Your task to perform on an android device: Add "panasonic triple a" to the cart on ebay.com, then select checkout. Image 0: 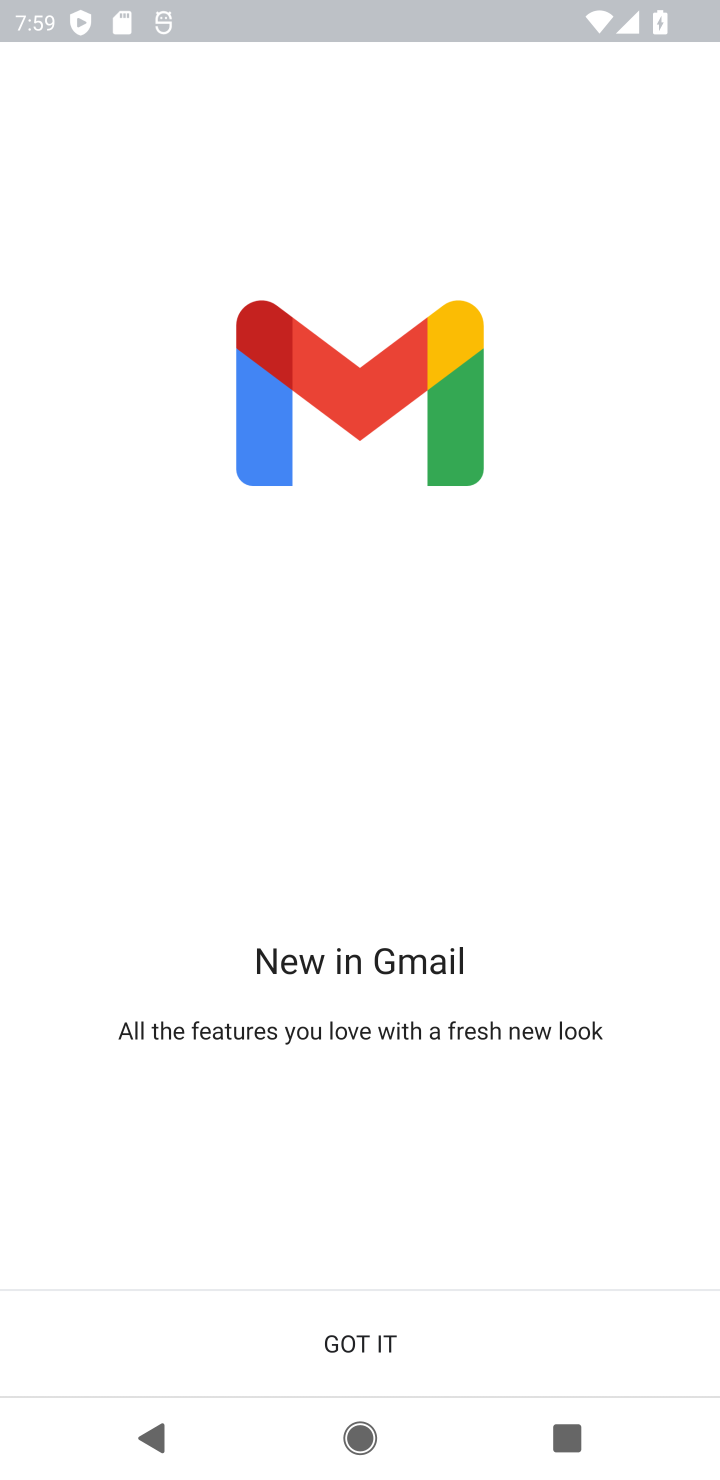
Step 0: press home button
Your task to perform on an android device: Add "panasonic triple a" to the cart on ebay.com, then select checkout. Image 1: 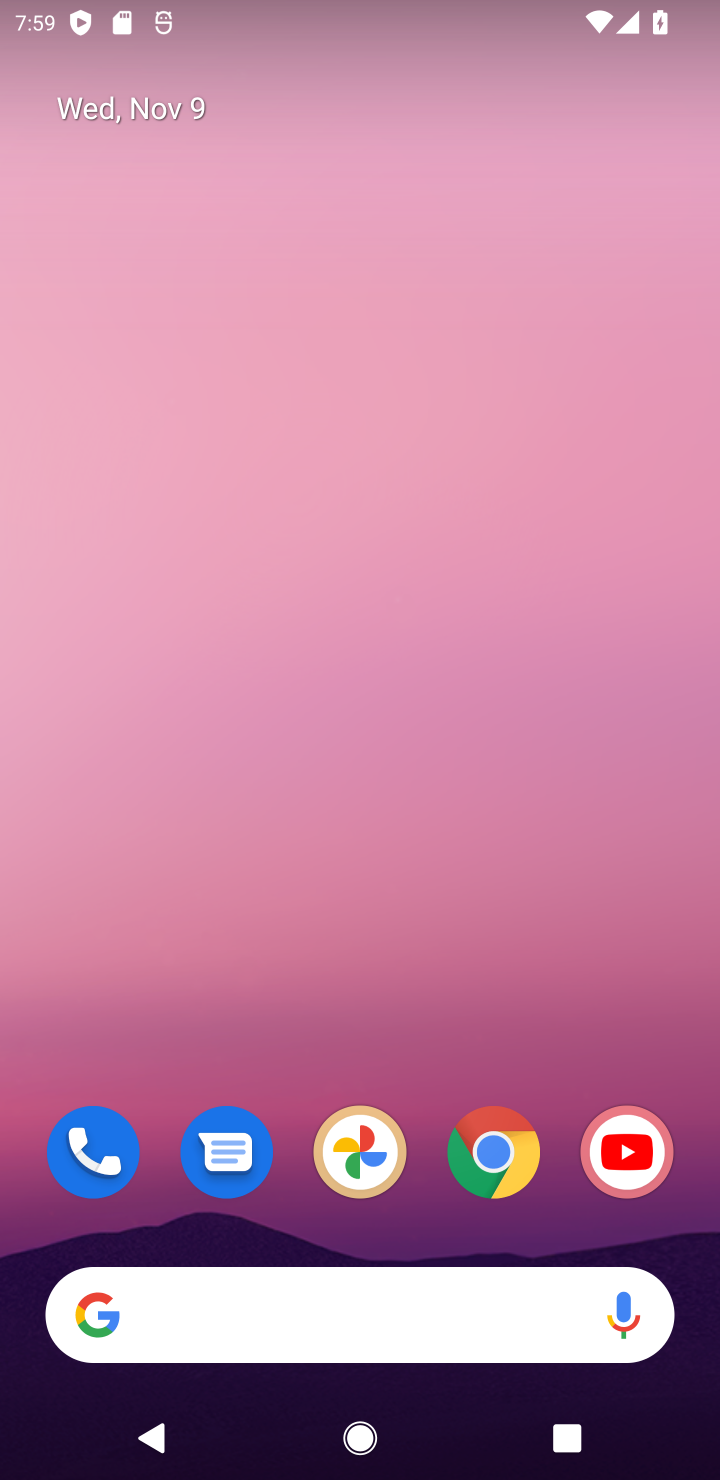
Step 1: click (483, 1158)
Your task to perform on an android device: Add "panasonic triple a" to the cart on ebay.com, then select checkout. Image 2: 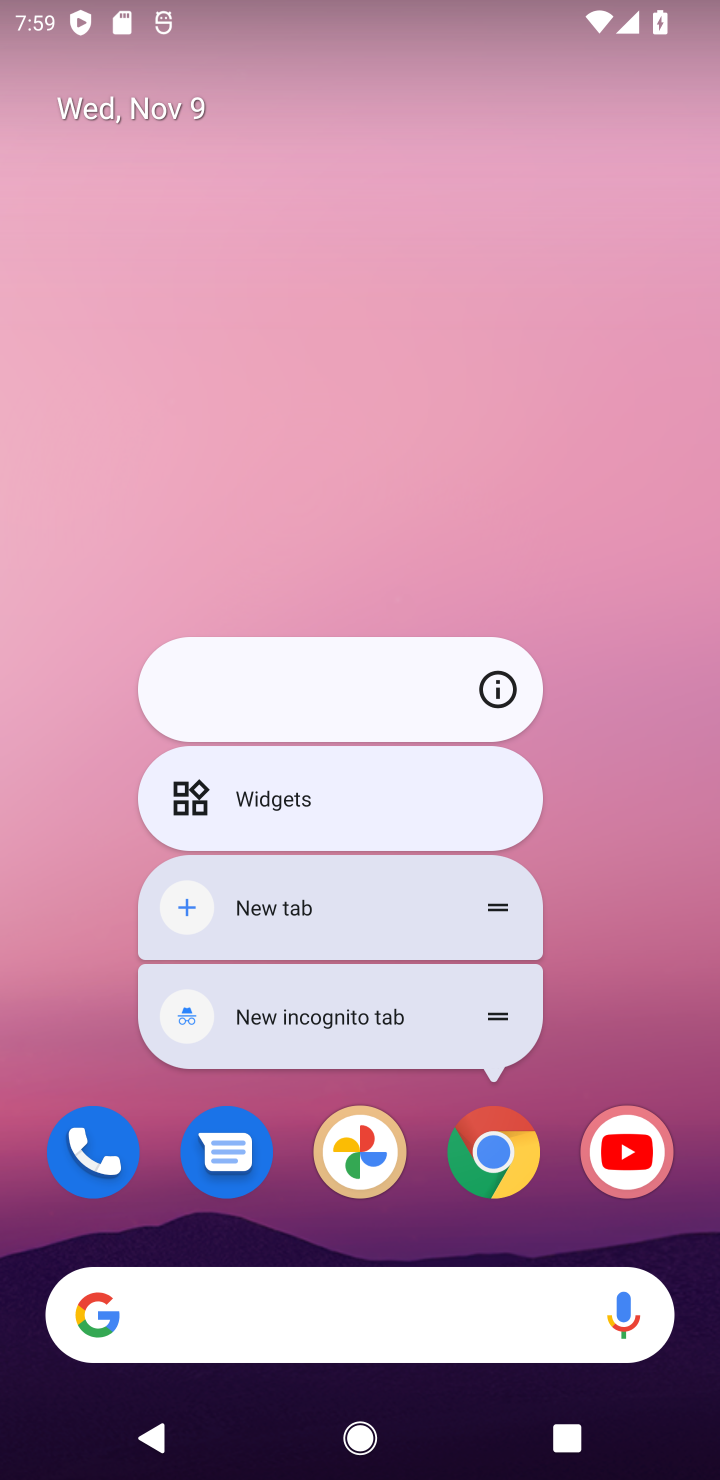
Step 2: click (496, 1164)
Your task to perform on an android device: Add "panasonic triple a" to the cart on ebay.com, then select checkout. Image 3: 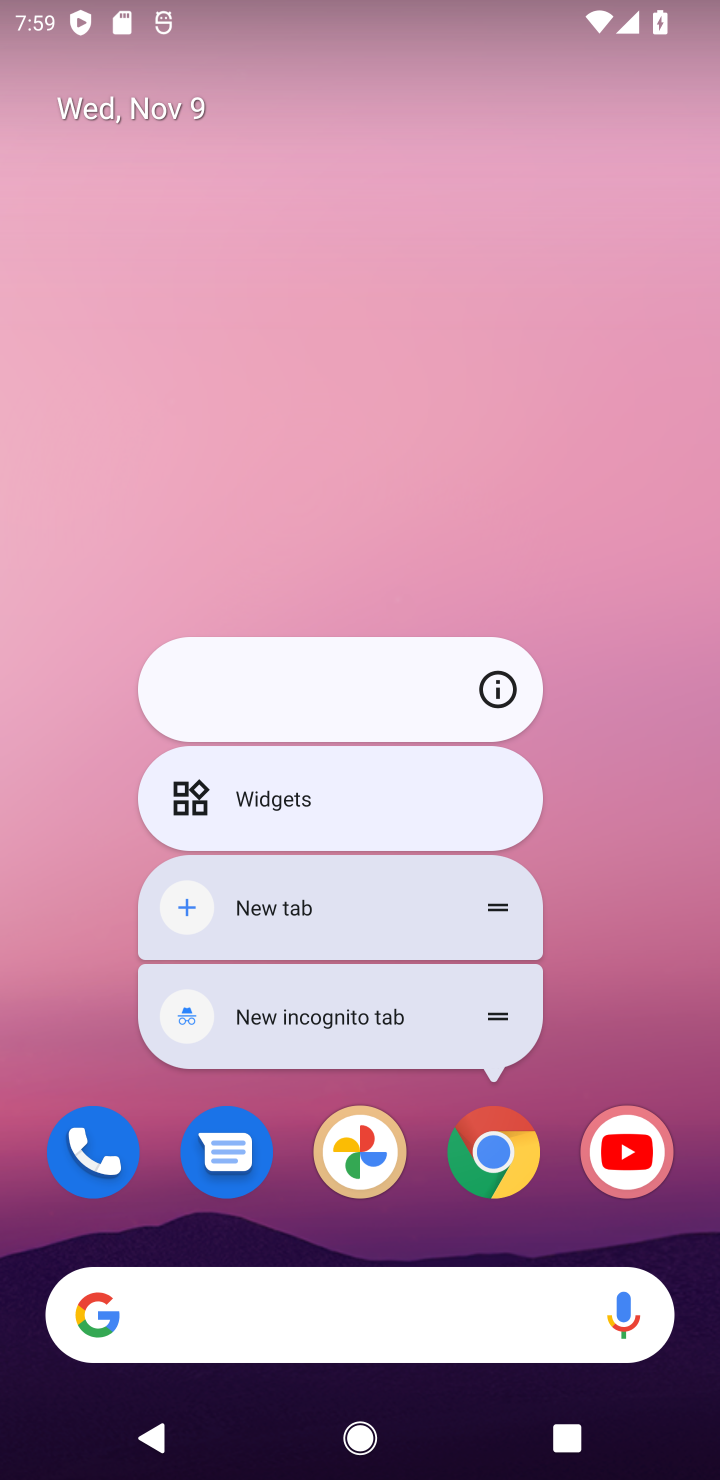
Step 3: click (496, 1169)
Your task to perform on an android device: Add "panasonic triple a" to the cart on ebay.com, then select checkout. Image 4: 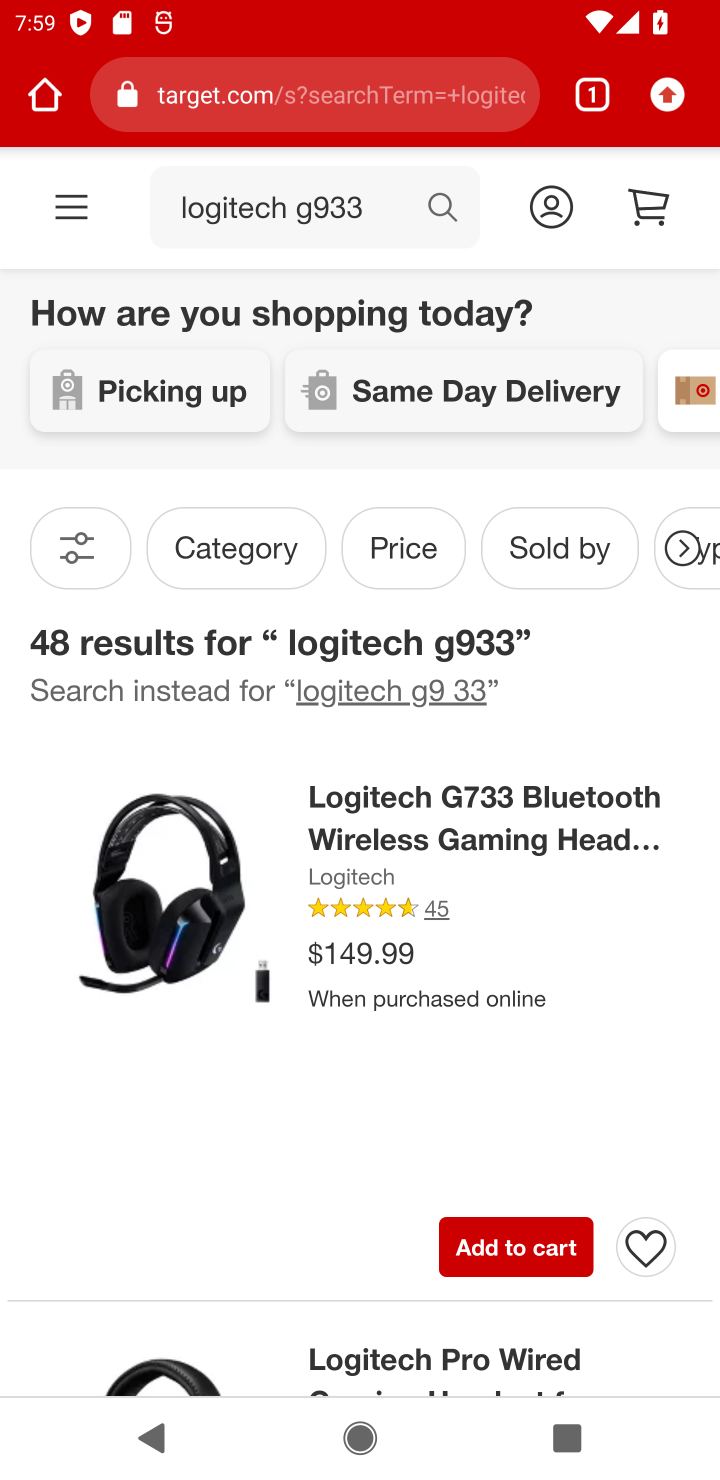
Step 4: click (353, 100)
Your task to perform on an android device: Add "panasonic triple a" to the cart on ebay.com, then select checkout. Image 5: 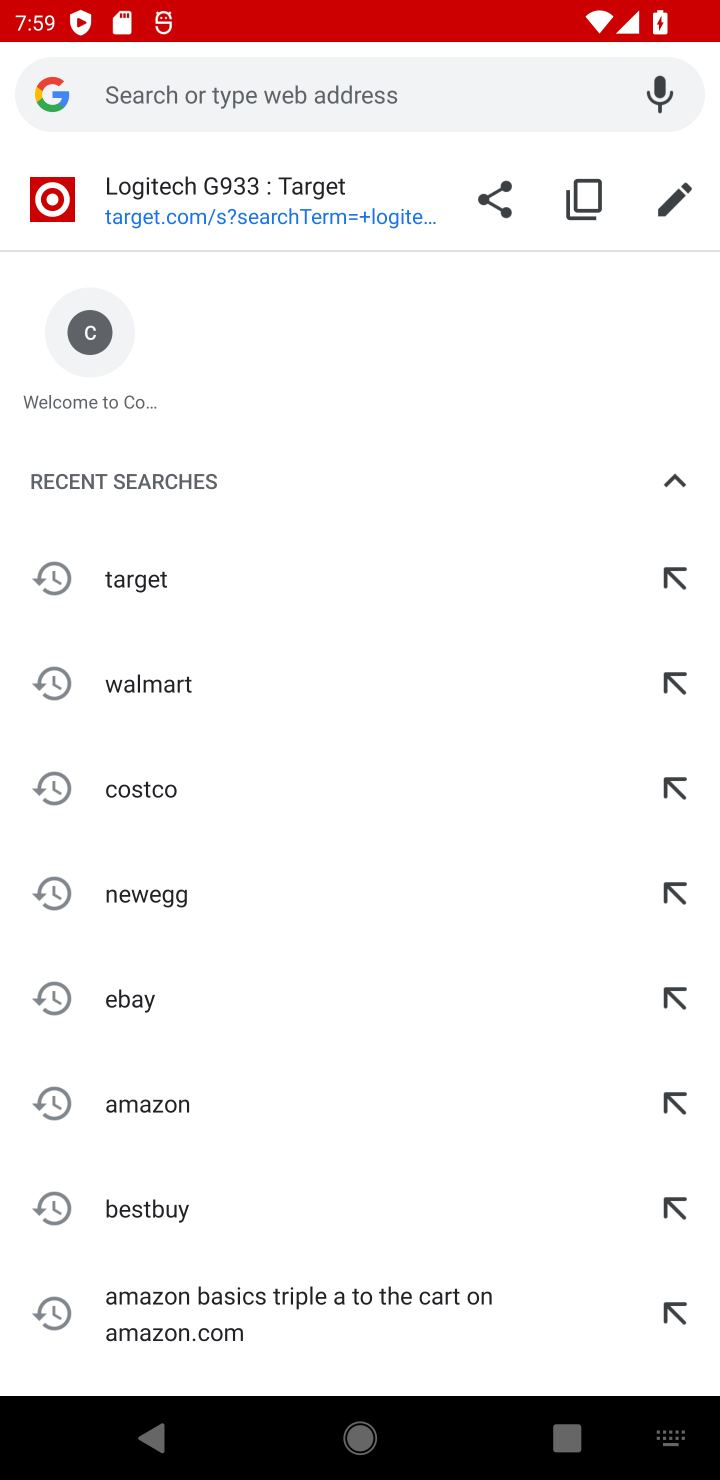
Step 5: click (127, 993)
Your task to perform on an android device: Add "panasonic triple a" to the cart on ebay.com, then select checkout. Image 6: 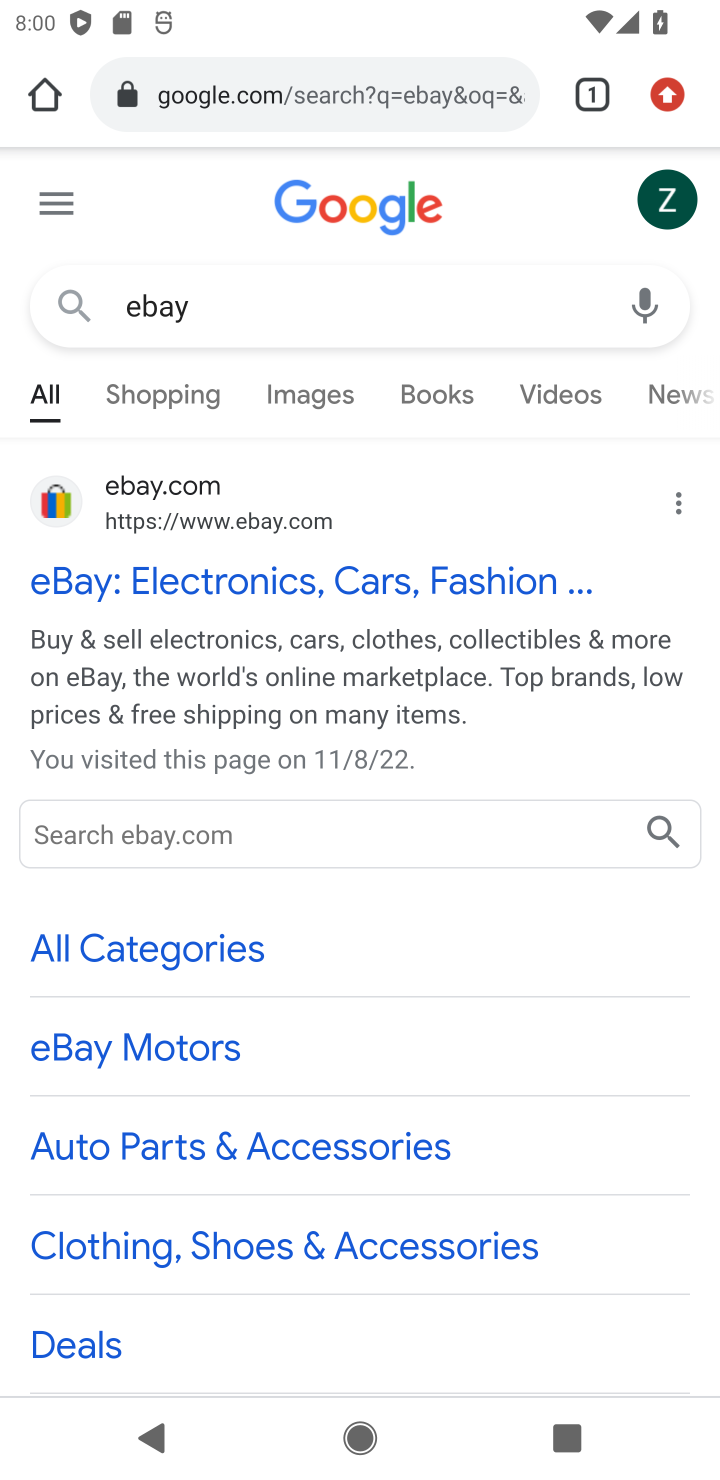
Step 6: click (273, 575)
Your task to perform on an android device: Add "panasonic triple a" to the cart on ebay.com, then select checkout. Image 7: 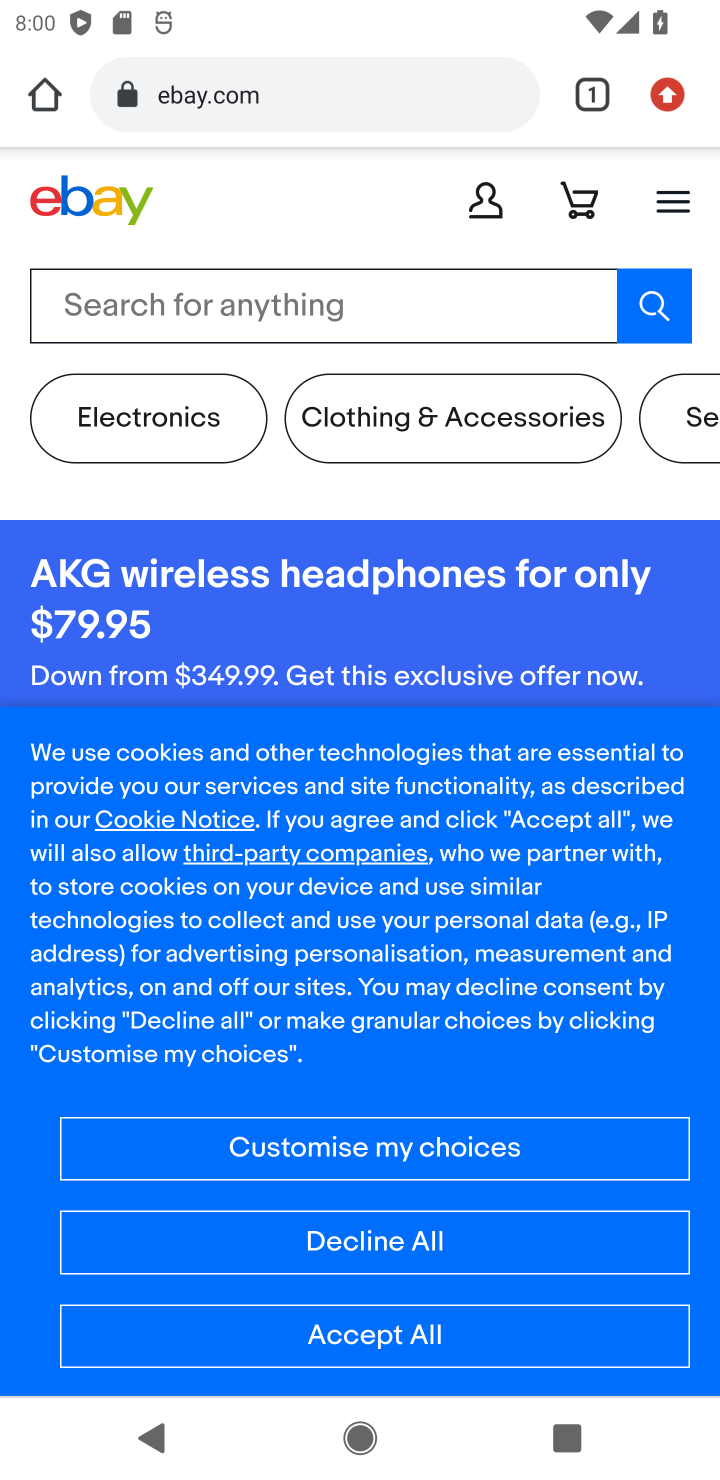
Step 7: click (330, 295)
Your task to perform on an android device: Add "panasonic triple a" to the cart on ebay.com, then select checkout. Image 8: 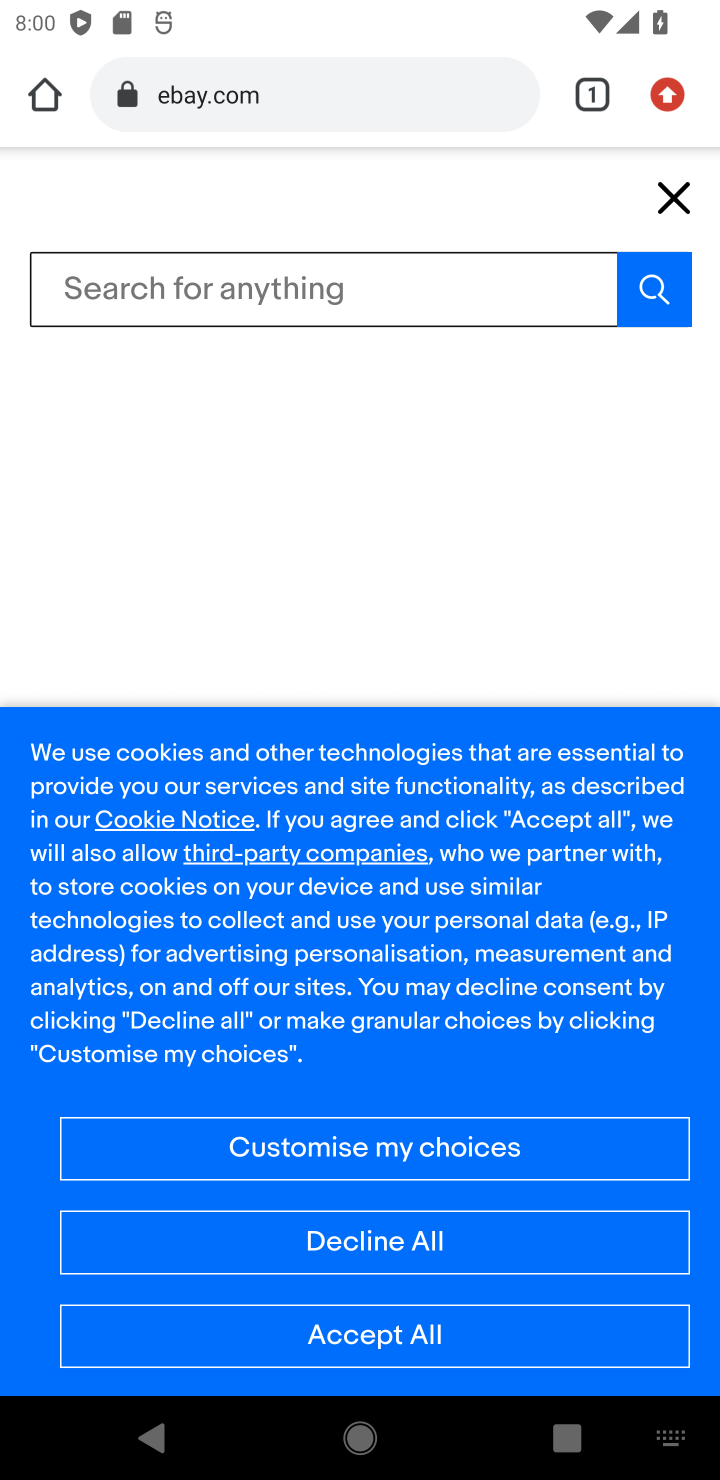
Step 8: click (405, 1345)
Your task to perform on an android device: Add "panasonic triple a" to the cart on ebay.com, then select checkout. Image 9: 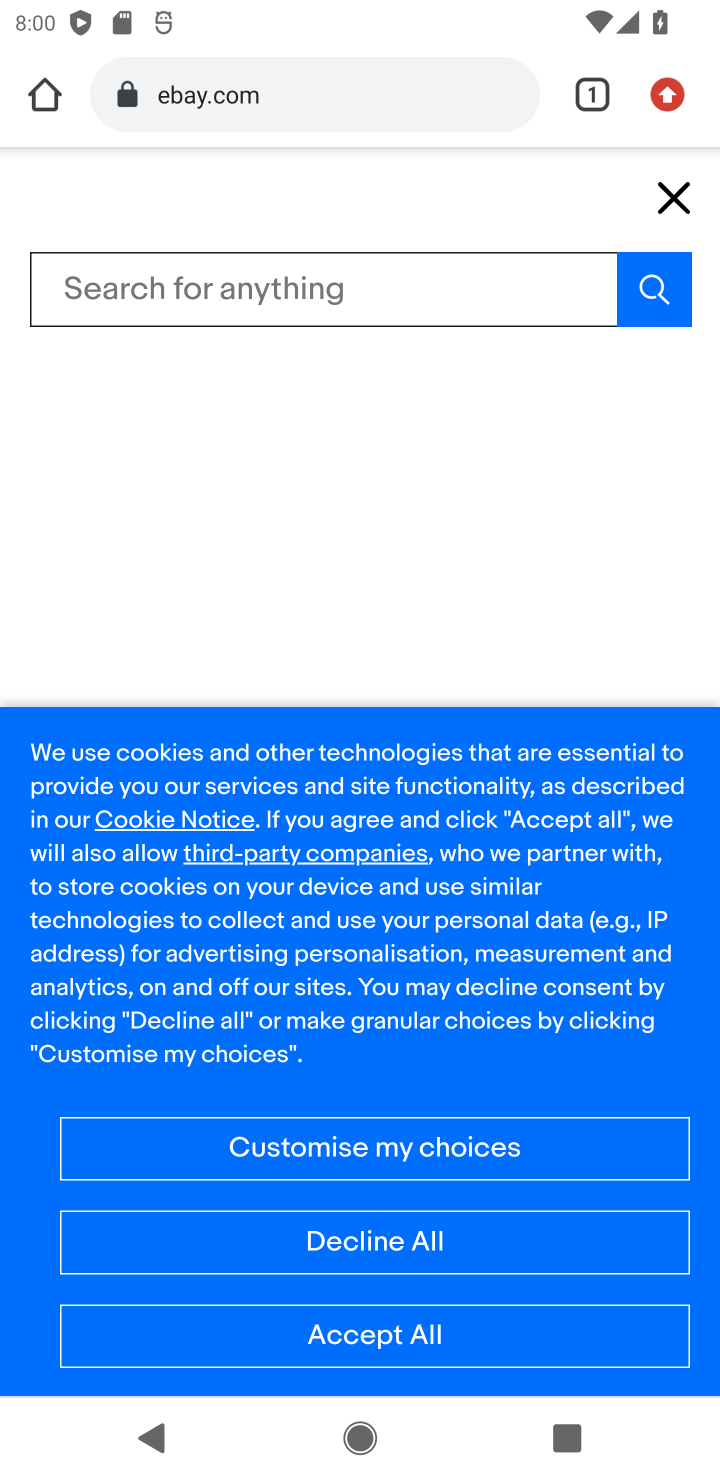
Step 9: click (374, 1342)
Your task to perform on an android device: Add "panasonic triple a" to the cart on ebay.com, then select checkout. Image 10: 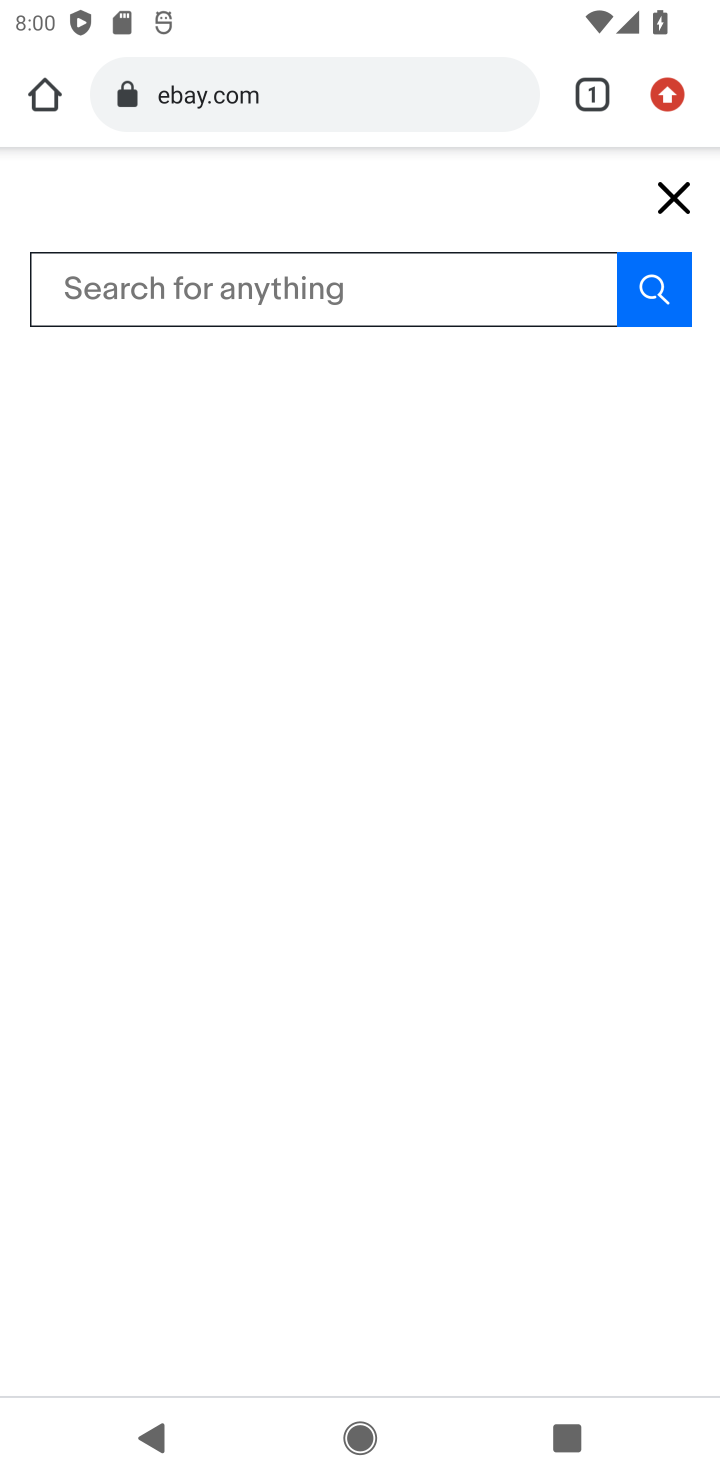
Step 10: click (296, 270)
Your task to perform on an android device: Add "panasonic triple a" to the cart on ebay.com, then select checkout. Image 11: 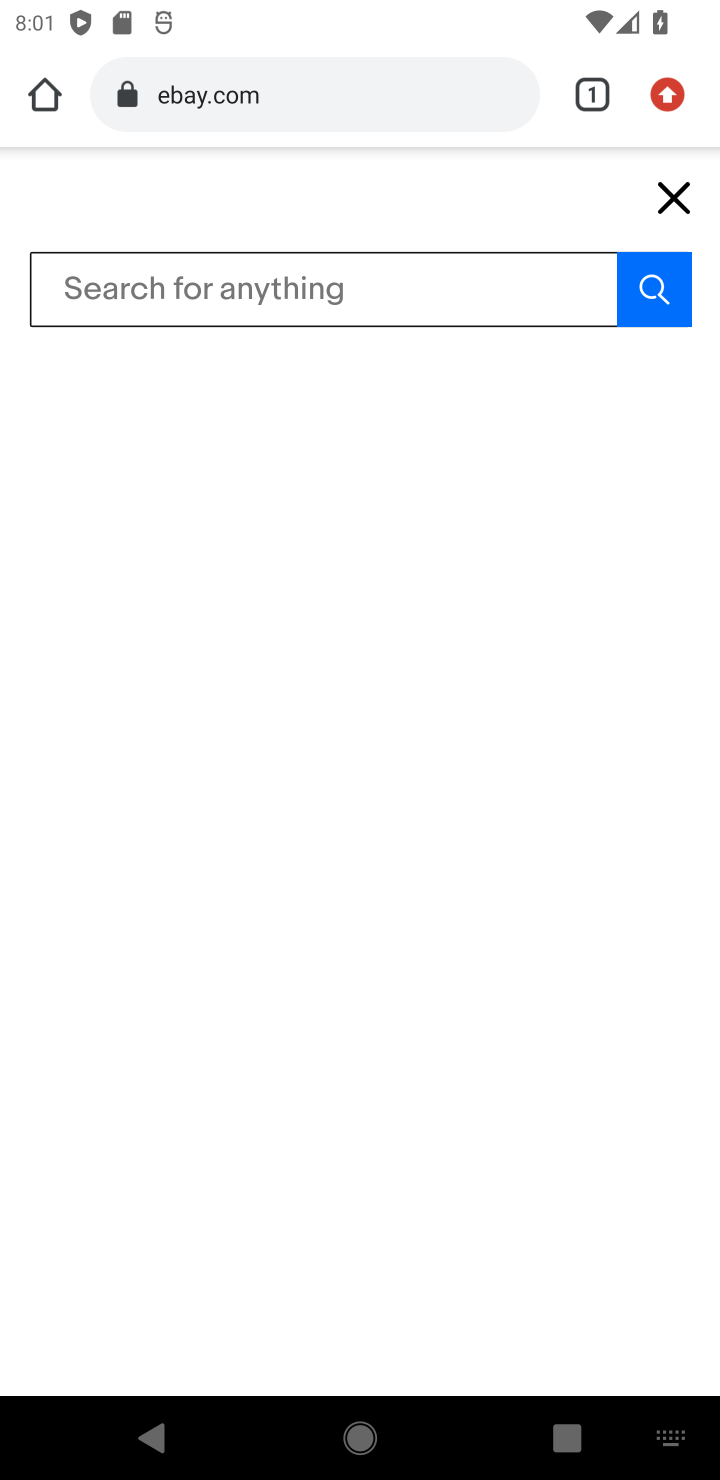
Step 11: type "panasonic triple a"
Your task to perform on an android device: Add "panasonic triple a" to the cart on ebay.com, then select checkout. Image 12: 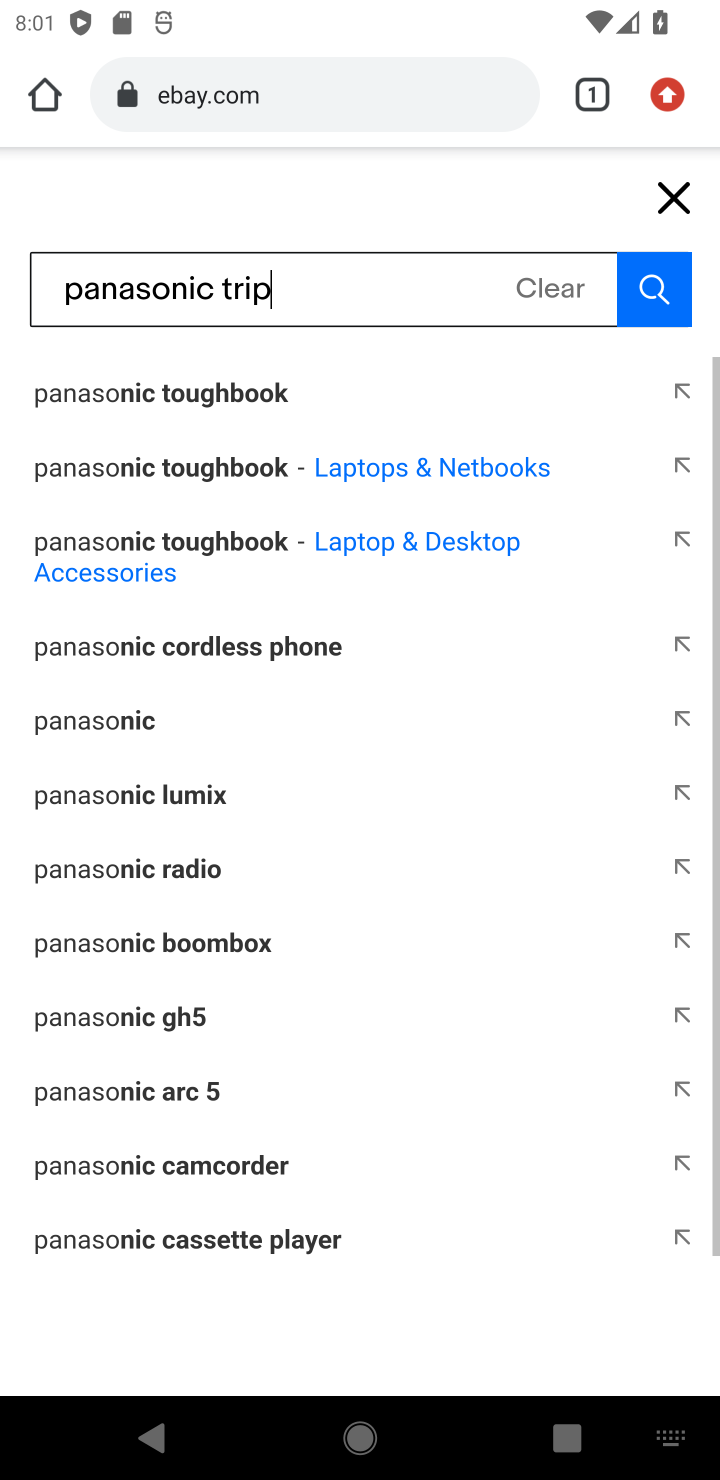
Step 12: press enter
Your task to perform on an android device: Add "panasonic triple a" to the cart on ebay.com, then select checkout. Image 13: 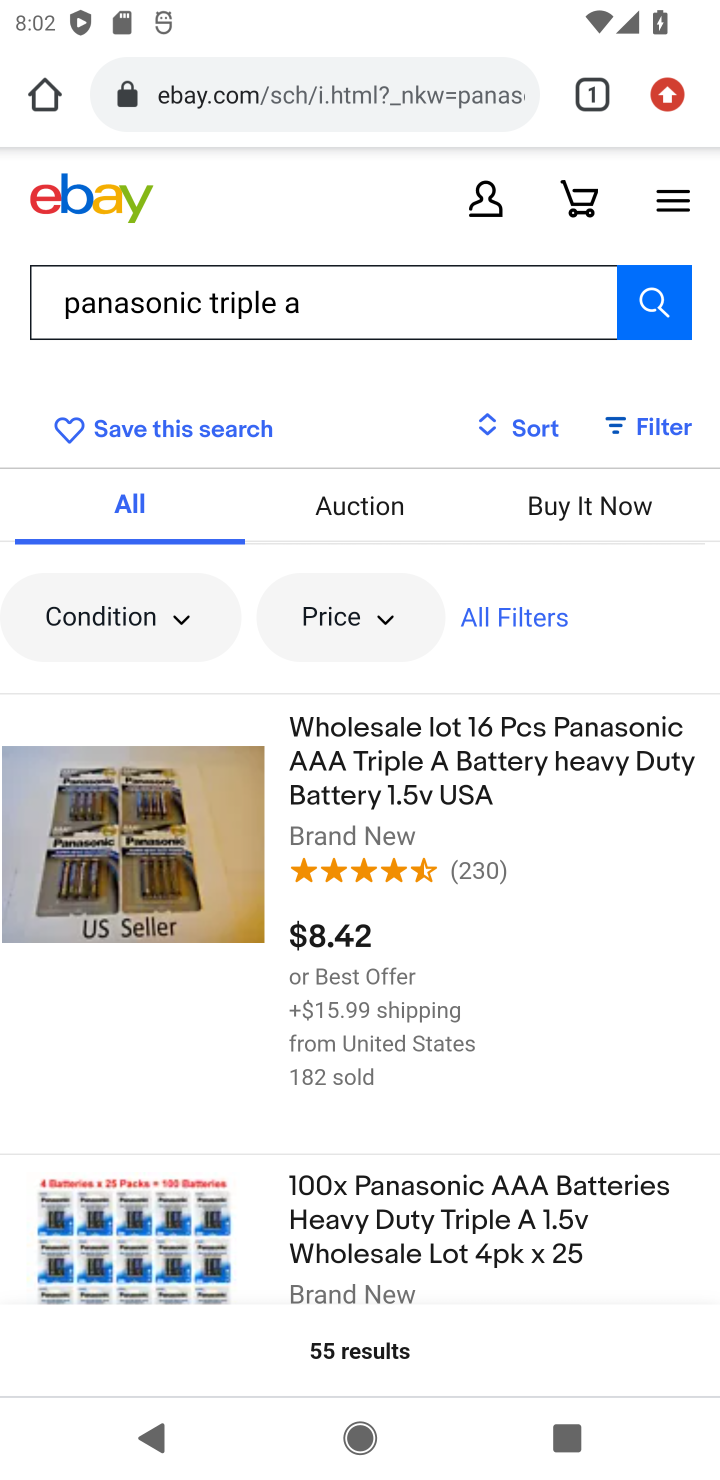
Step 13: click (339, 794)
Your task to perform on an android device: Add "panasonic triple a" to the cart on ebay.com, then select checkout. Image 14: 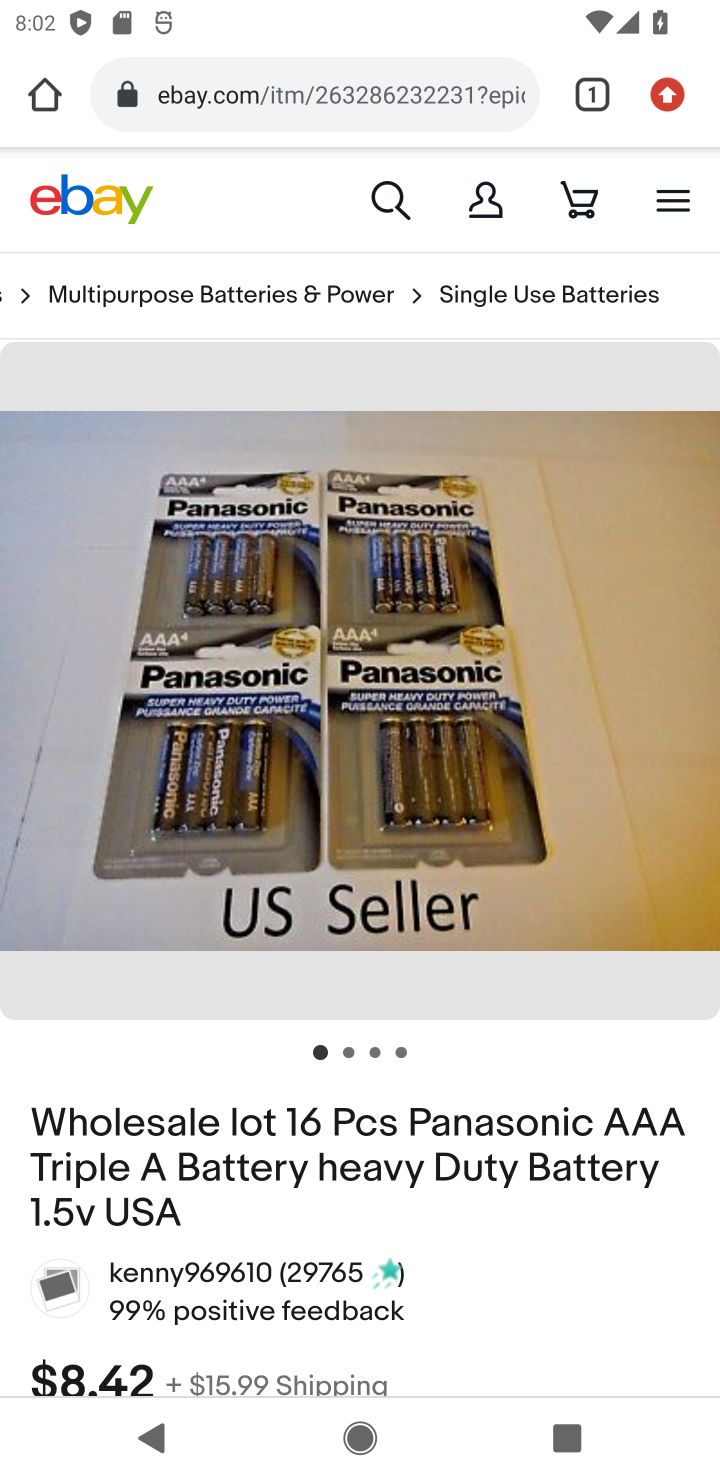
Step 14: drag from (408, 1343) to (621, 350)
Your task to perform on an android device: Add "panasonic triple a" to the cart on ebay.com, then select checkout. Image 15: 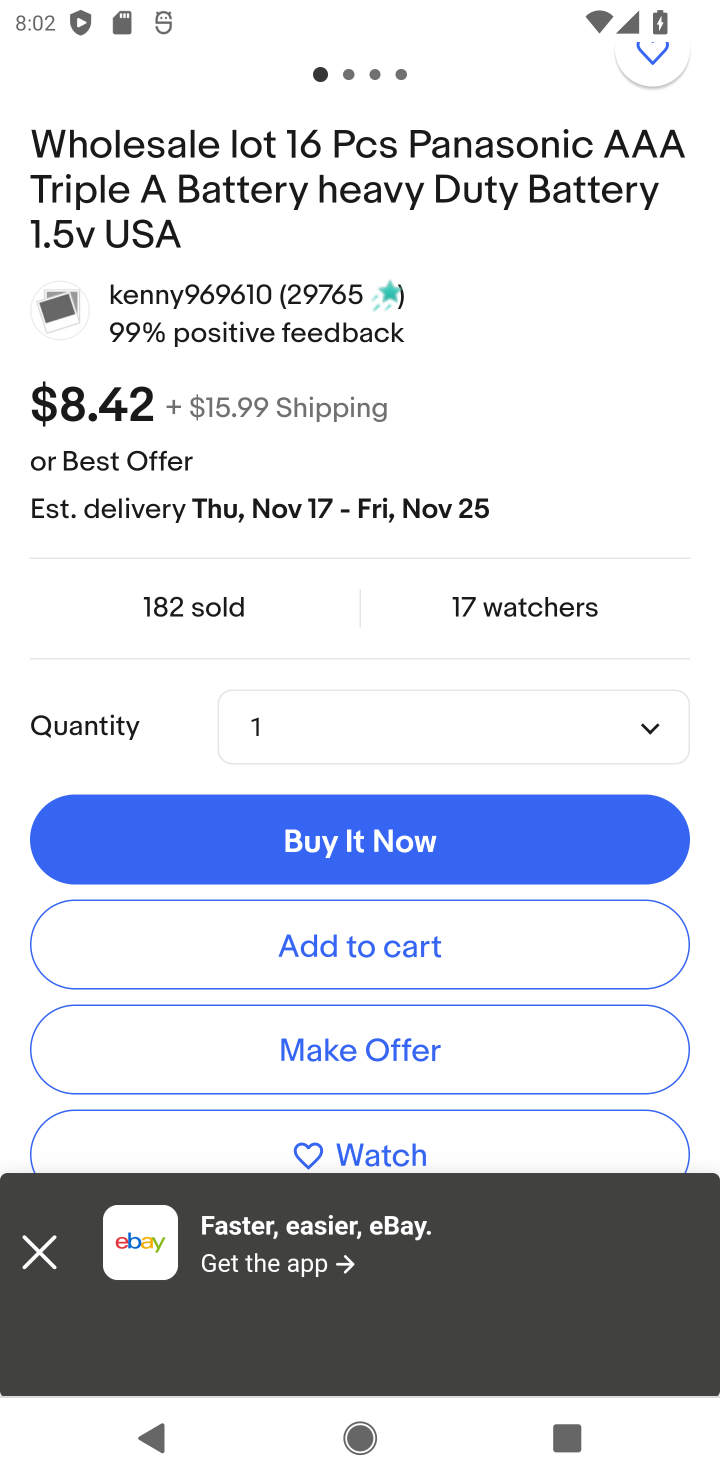
Step 15: click (385, 940)
Your task to perform on an android device: Add "panasonic triple a" to the cart on ebay.com, then select checkout. Image 16: 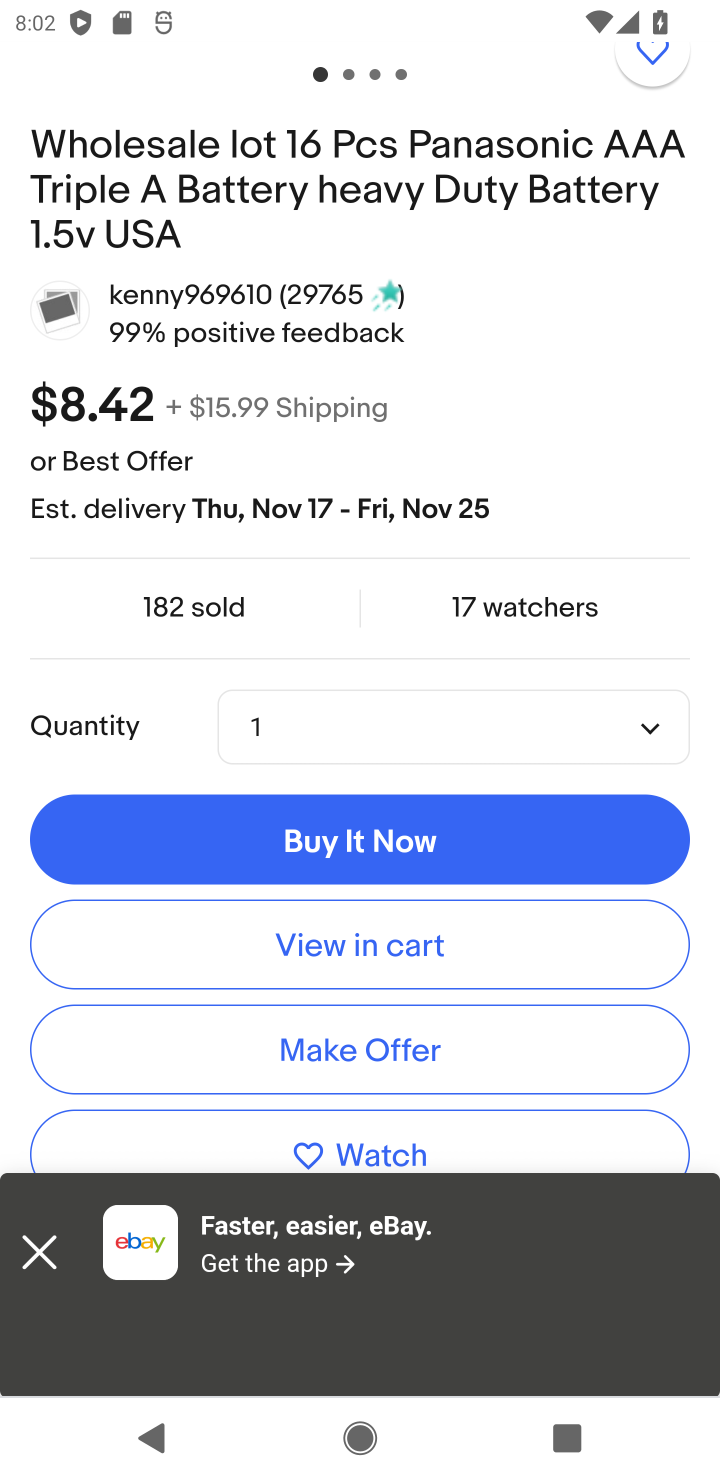
Step 16: click (385, 944)
Your task to perform on an android device: Add "panasonic triple a" to the cart on ebay.com, then select checkout. Image 17: 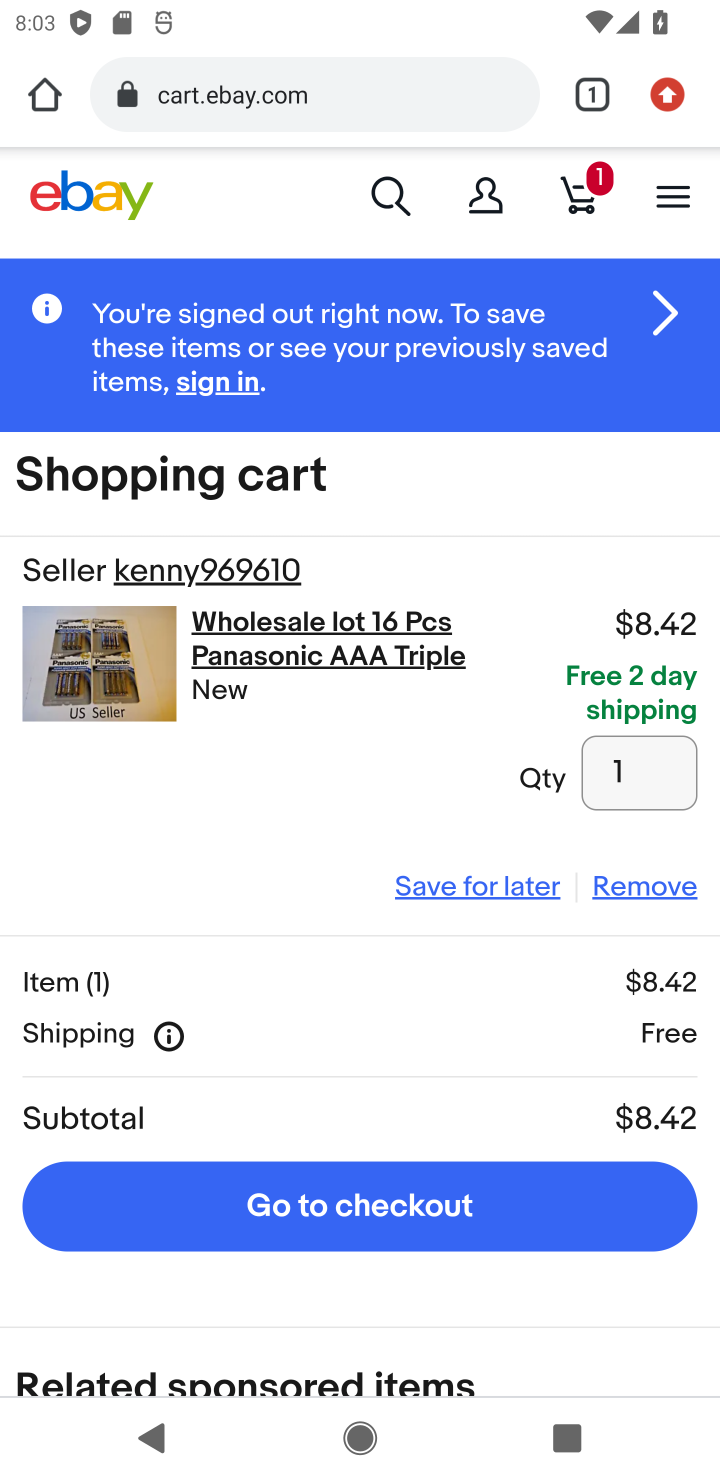
Step 17: click (415, 1199)
Your task to perform on an android device: Add "panasonic triple a" to the cart on ebay.com, then select checkout. Image 18: 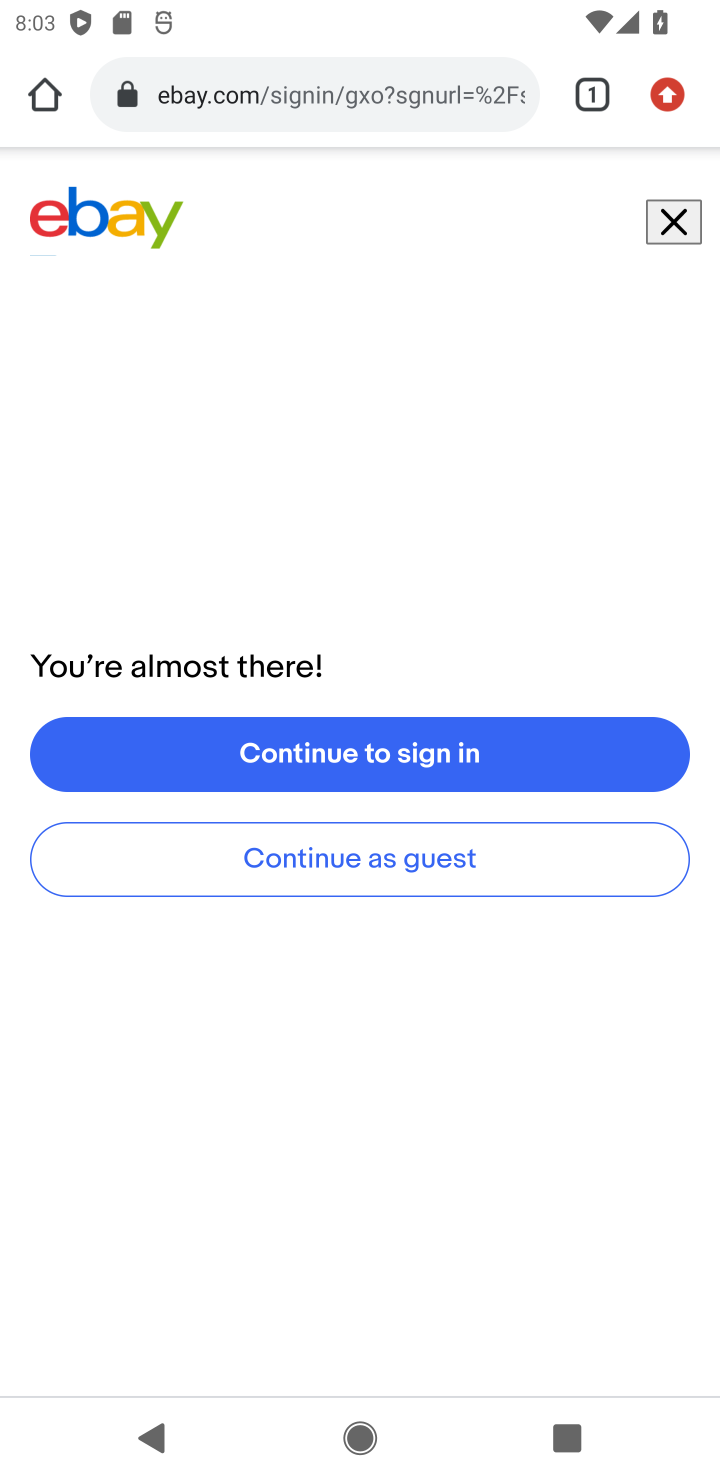
Step 18: task complete